Your task to perform on an android device: set default search engine in the chrome app Image 0: 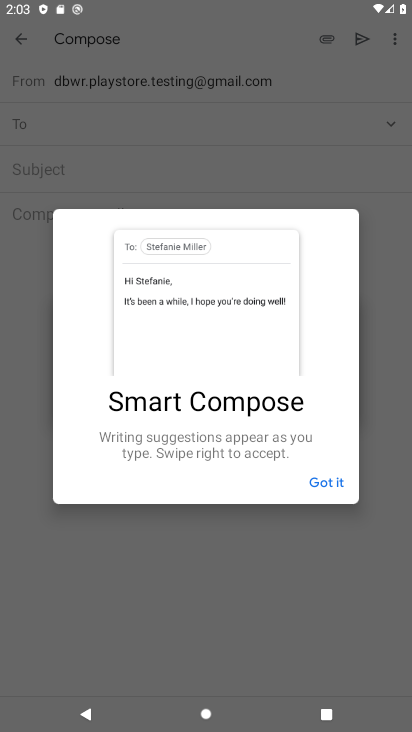
Step 0: press home button
Your task to perform on an android device: set default search engine in the chrome app Image 1: 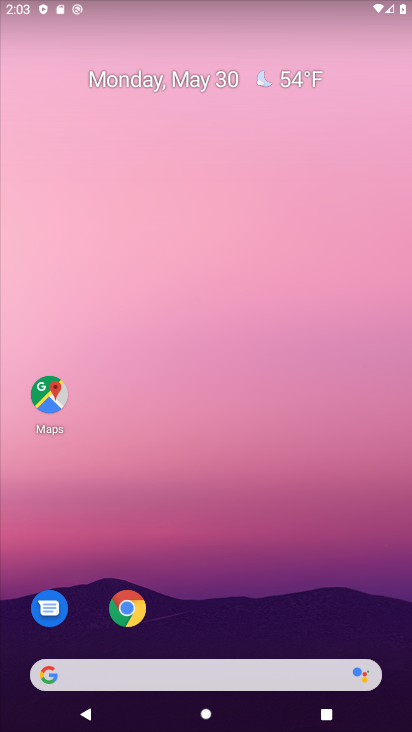
Step 1: drag from (305, 513) to (192, 729)
Your task to perform on an android device: set default search engine in the chrome app Image 2: 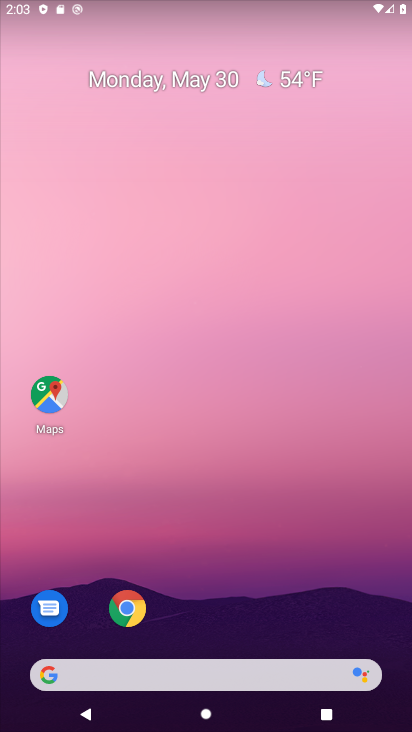
Step 2: click (127, 610)
Your task to perform on an android device: set default search engine in the chrome app Image 3: 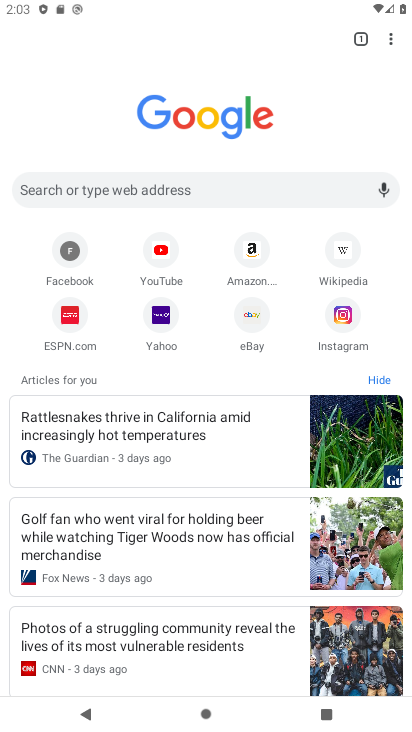
Step 3: click (390, 45)
Your task to perform on an android device: set default search engine in the chrome app Image 4: 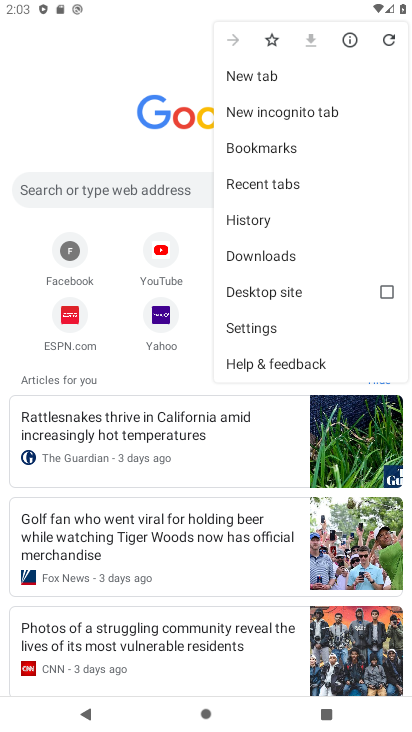
Step 4: click (275, 319)
Your task to perform on an android device: set default search engine in the chrome app Image 5: 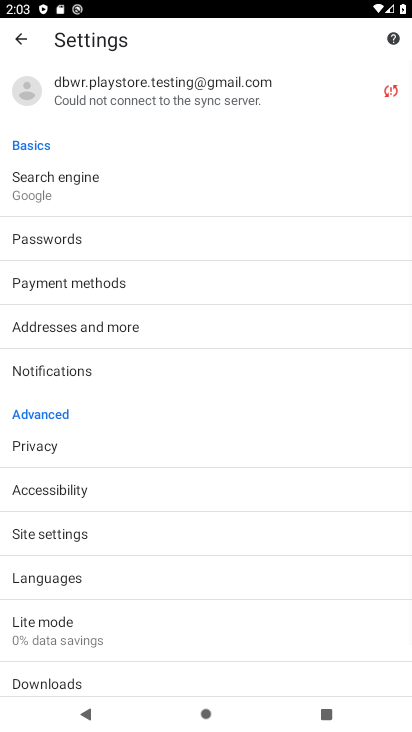
Step 5: drag from (182, 610) to (187, 155)
Your task to perform on an android device: set default search engine in the chrome app Image 6: 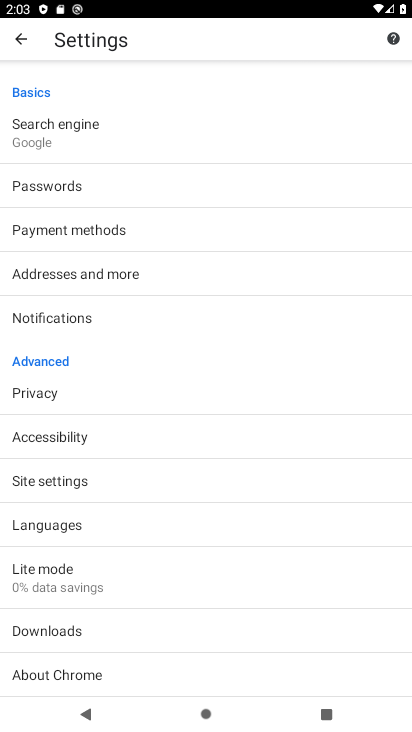
Step 6: drag from (155, 194) to (161, 636)
Your task to perform on an android device: set default search engine in the chrome app Image 7: 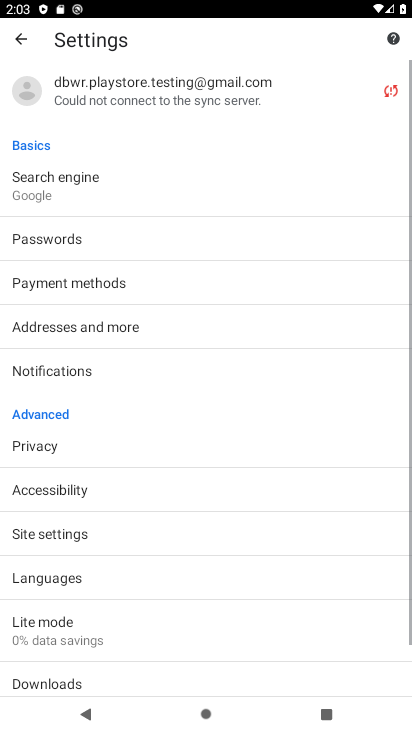
Step 7: click (121, 170)
Your task to perform on an android device: set default search engine in the chrome app Image 8: 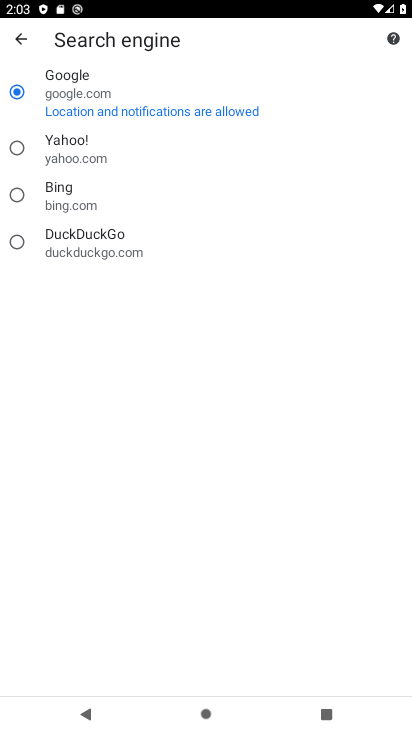
Step 8: click (90, 74)
Your task to perform on an android device: set default search engine in the chrome app Image 9: 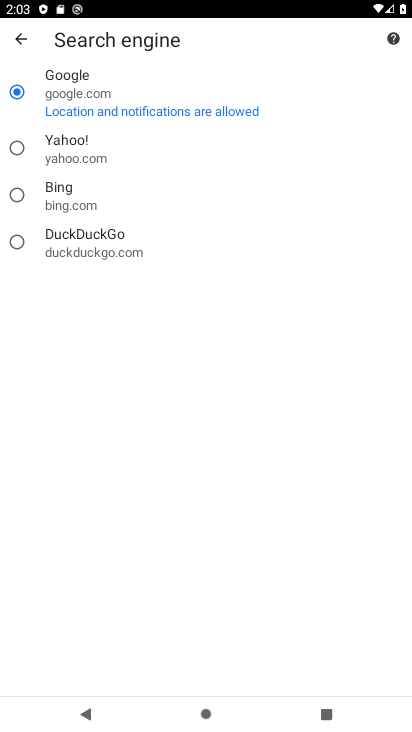
Step 9: task complete